Your task to perform on an android device: Add razer thresher to the cart on newegg Image 0: 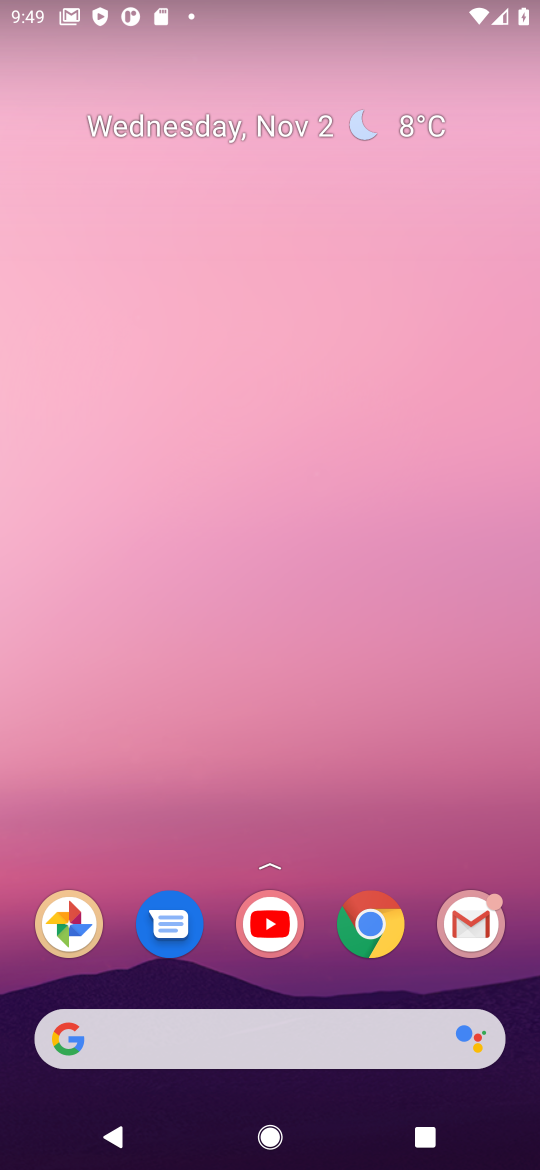
Step 0: click (365, 915)
Your task to perform on an android device: Add razer thresher to the cart on newegg Image 1: 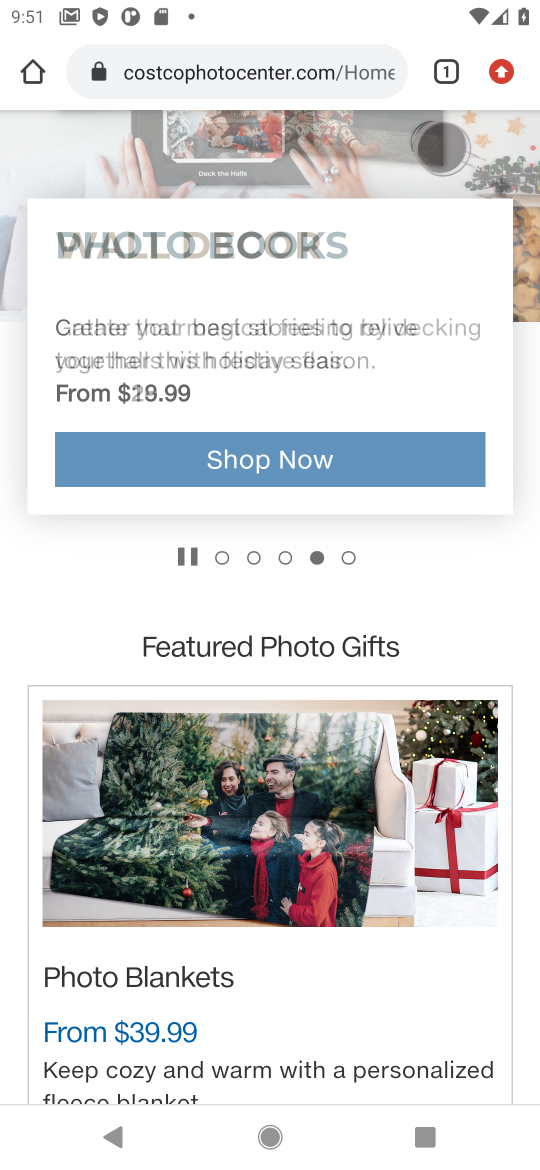
Step 1: click (227, 71)
Your task to perform on an android device: Add razer thresher to the cart on newegg Image 2: 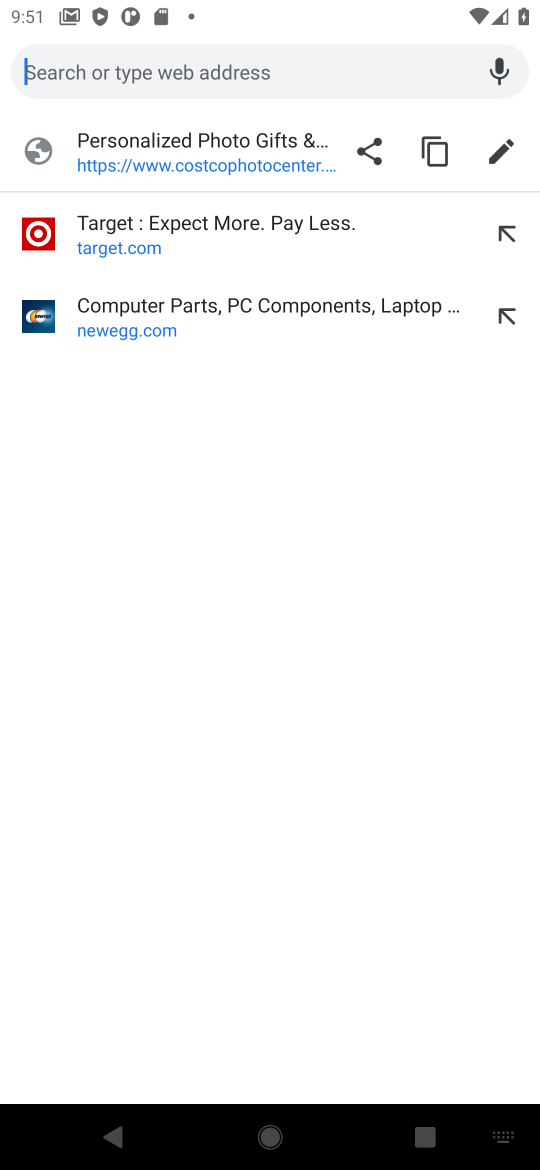
Step 2: type "newegg"
Your task to perform on an android device: Add razer thresher to the cart on newegg Image 3: 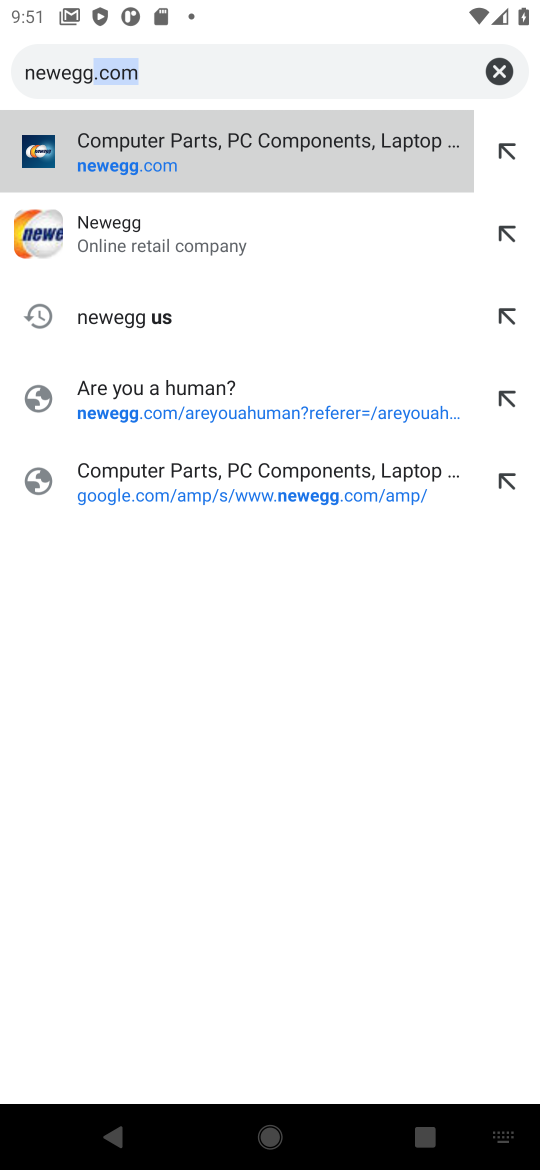
Step 3: click (116, 243)
Your task to perform on an android device: Add razer thresher to the cart on newegg Image 4: 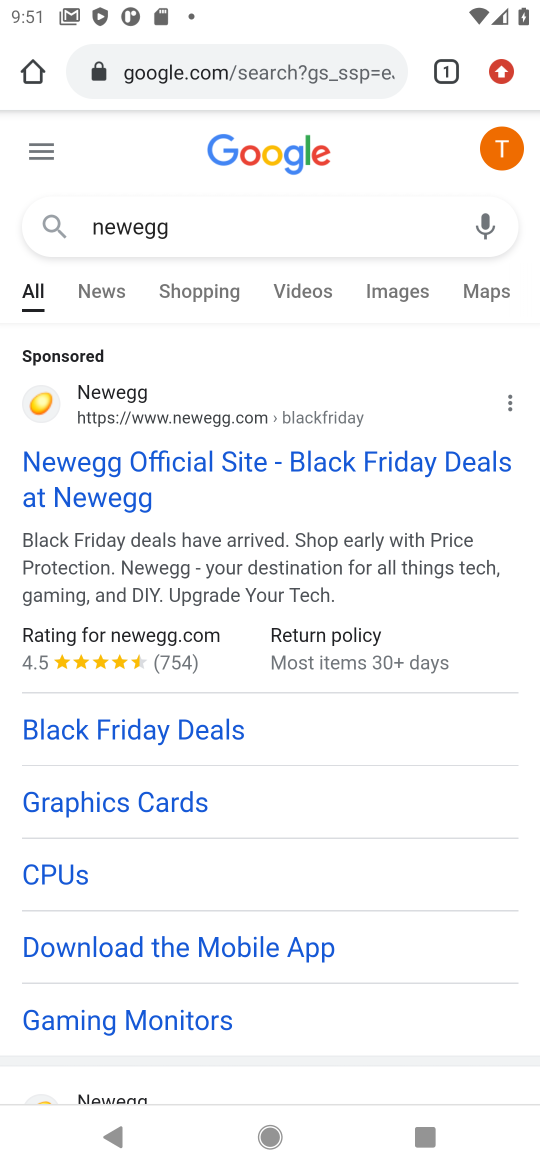
Step 4: drag from (270, 756) to (275, 903)
Your task to perform on an android device: Add razer thresher to the cart on newegg Image 5: 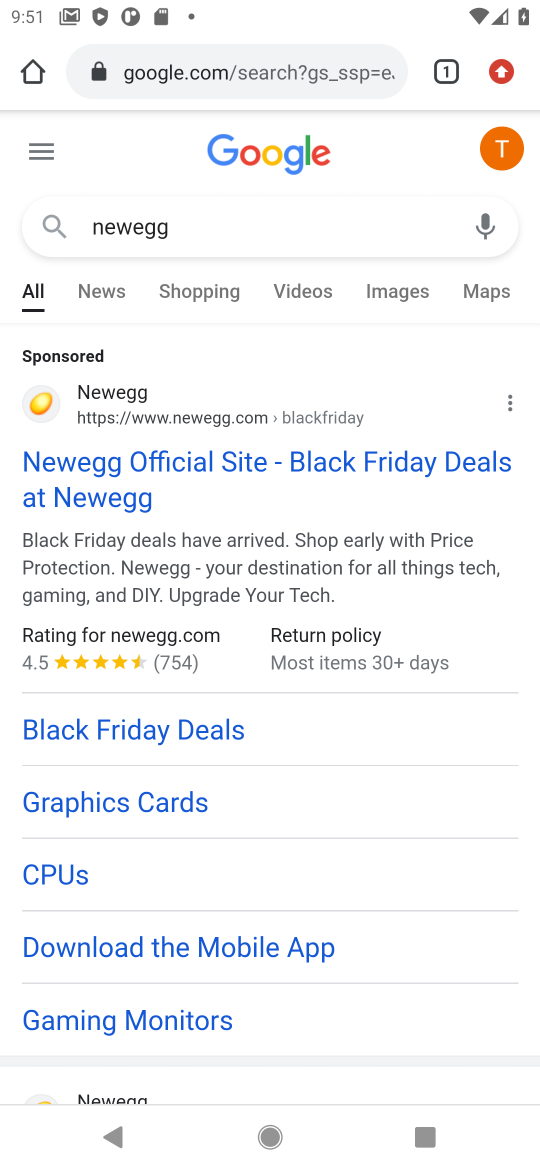
Step 5: click (205, 461)
Your task to perform on an android device: Add razer thresher to the cart on newegg Image 6: 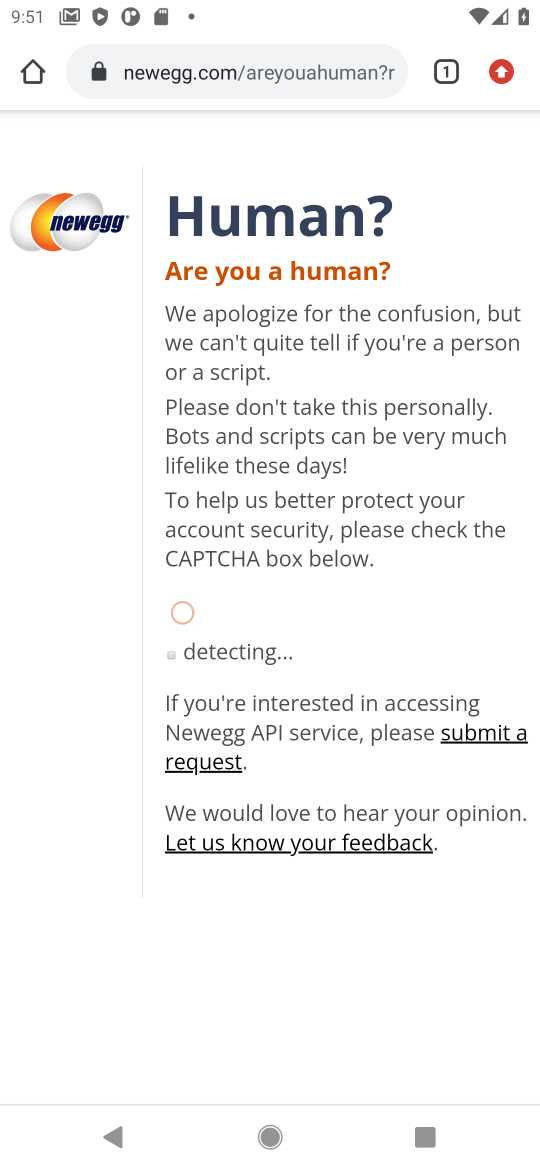
Step 6: press back button
Your task to perform on an android device: Add razer thresher to the cart on newegg Image 7: 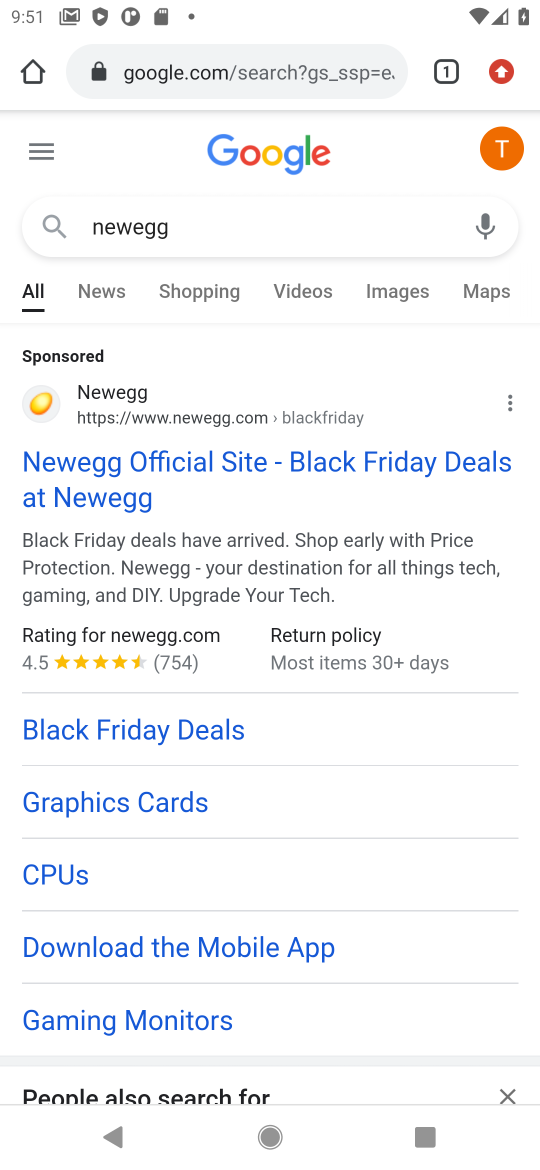
Step 7: drag from (167, 798) to (172, 419)
Your task to perform on an android device: Add razer thresher to the cart on newegg Image 8: 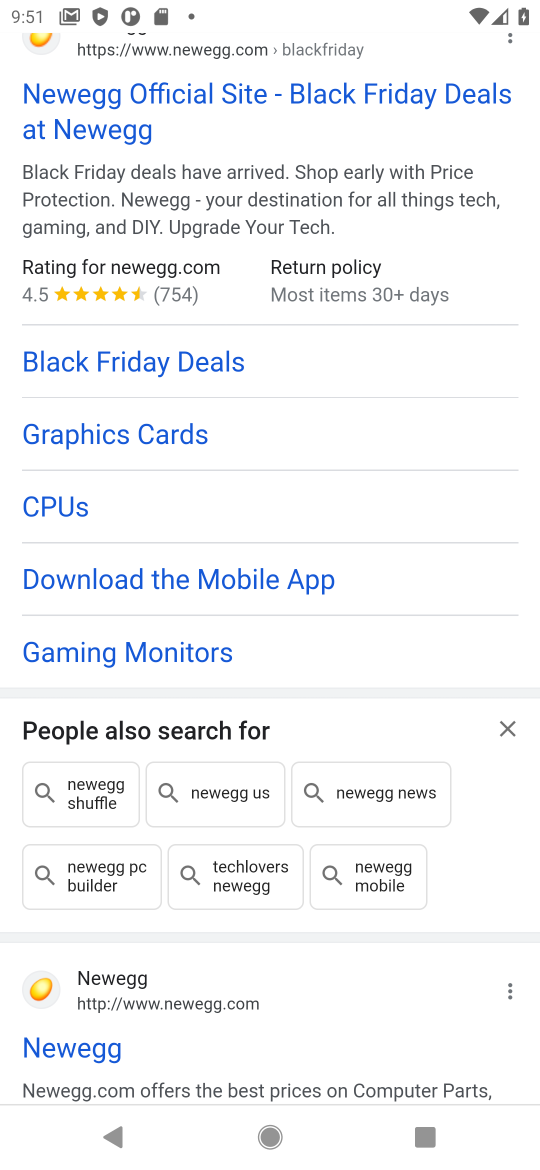
Step 8: drag from (188, 869) to (190, 367)
Your task to perform on an android device: Add razer thresher to the cart on newegg Image 9: 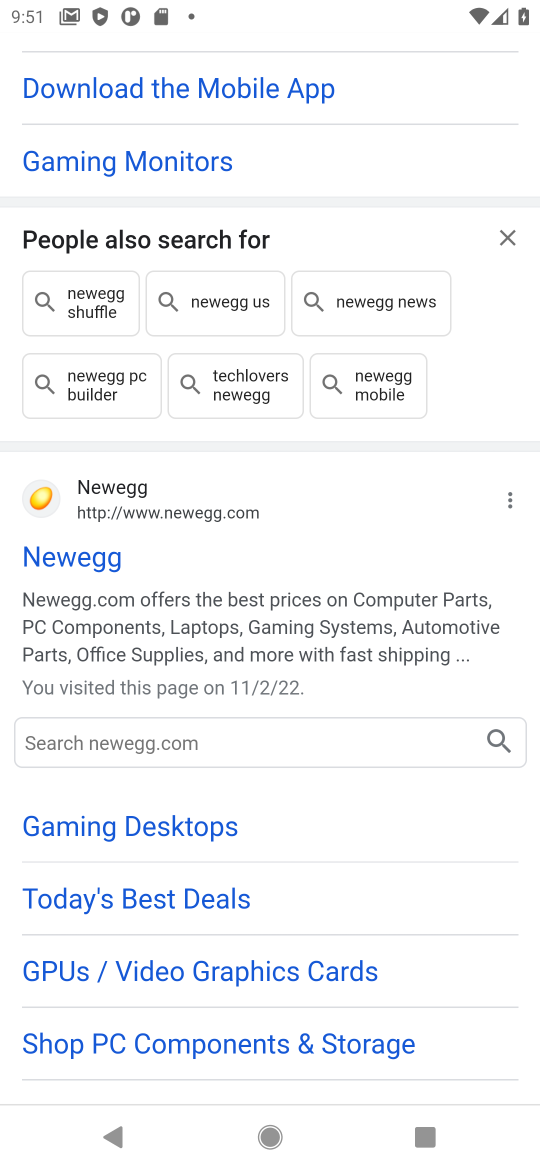
Step 9: click (95, 564)
Your task to perform on an android device: Add razer thresher to the cart on newegg Image 10: 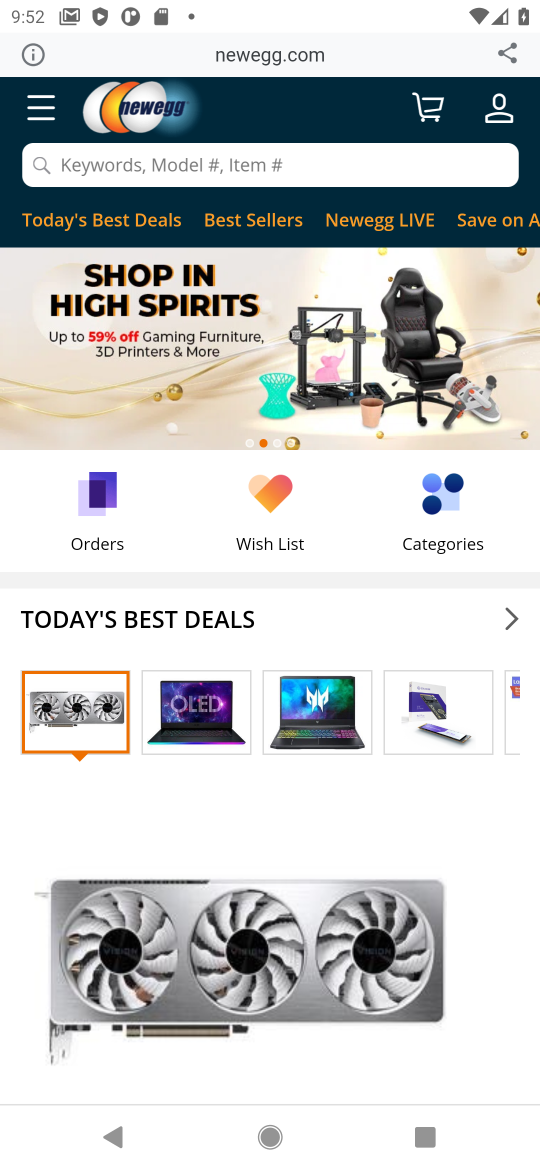
Step 10: click (79, 168)
Your task to perform on an android device: Add razer thresher to the cart on newegg Image 11: 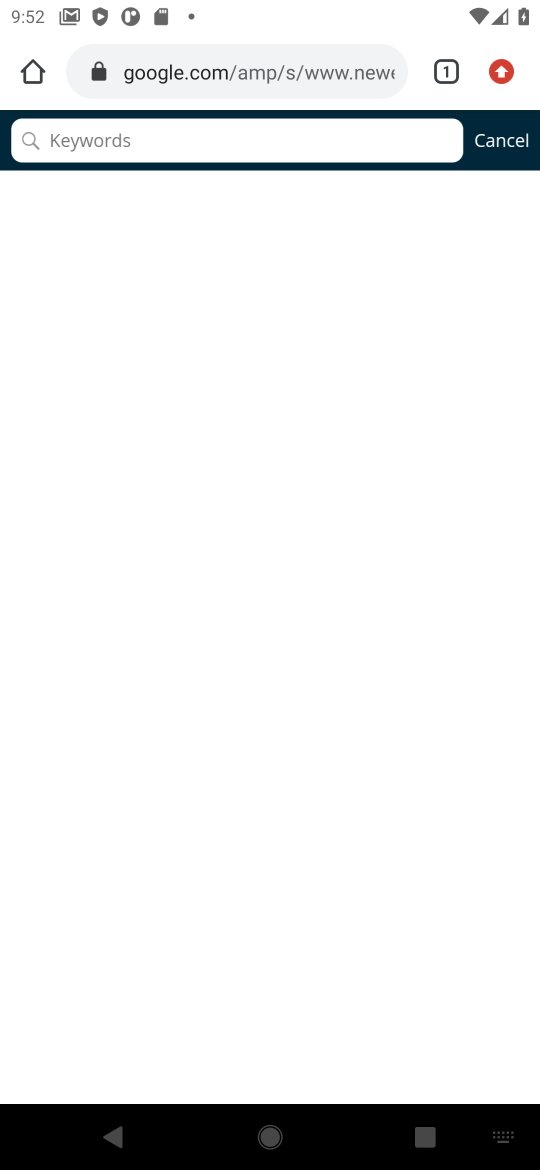
Step 11: type "razer thresher"
Your task to perform on an android device: Add razer thresher to the cart on newegg Image 12: 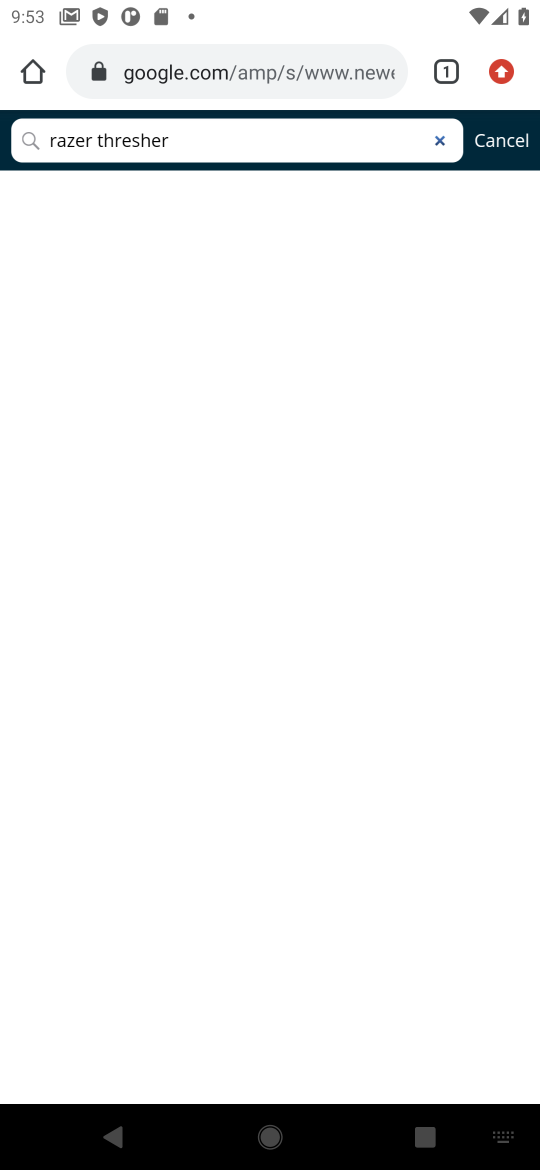
Step 12: click (34, 141)
Your task to perform on an android device: Add razer thresher to the cart on newegg Image 13: 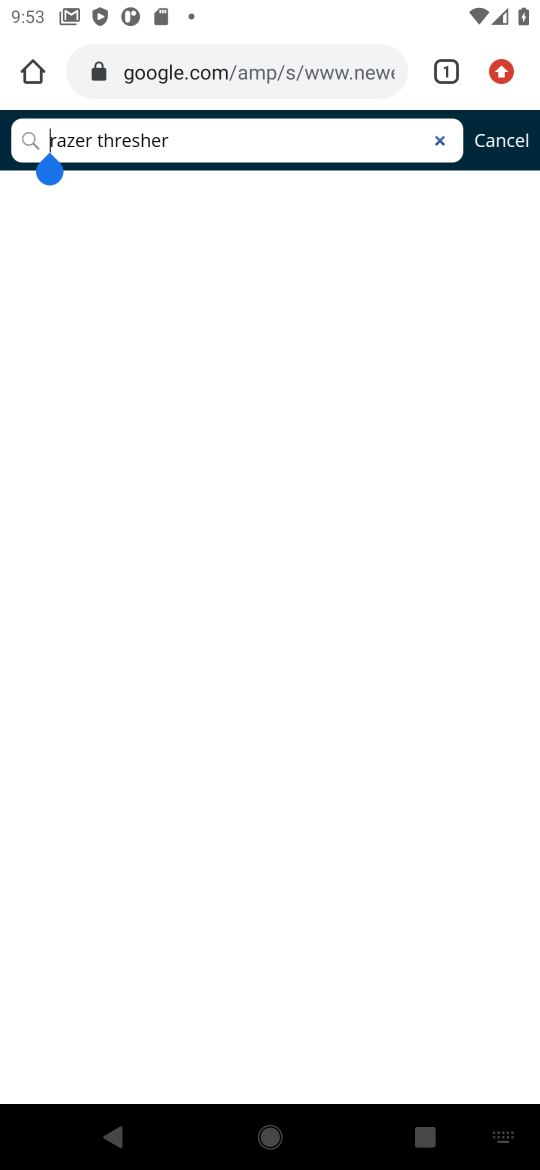
Step 13: click (34, 139)
Your task to perform on an android device: Add razer thresher to the cart on newegg Image 14: 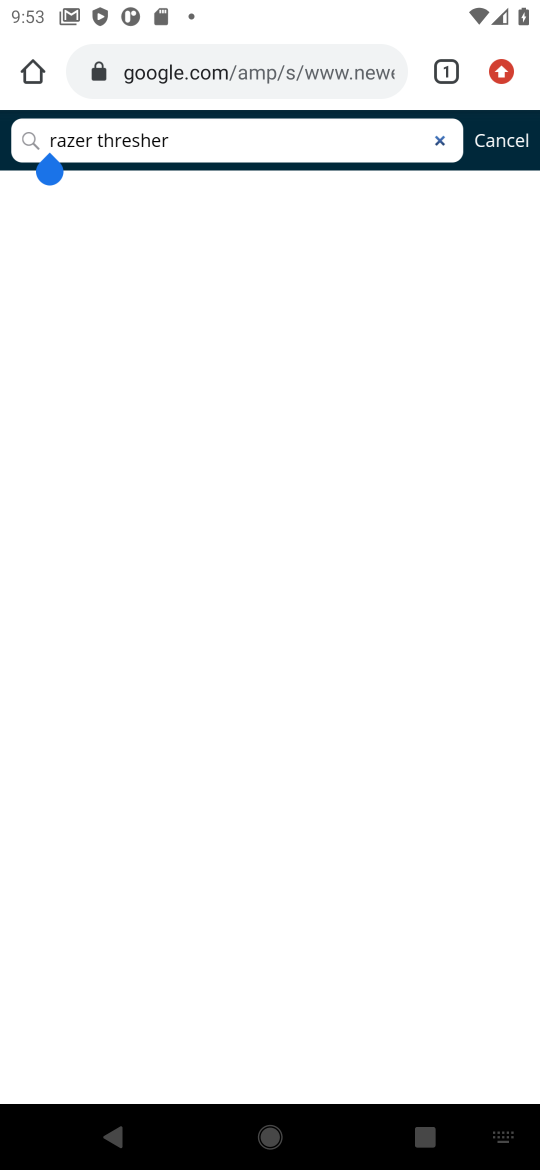
Step 14: press back button
Your task to perform on an android device: Add razer thresher to the cart on newegg Image 15: 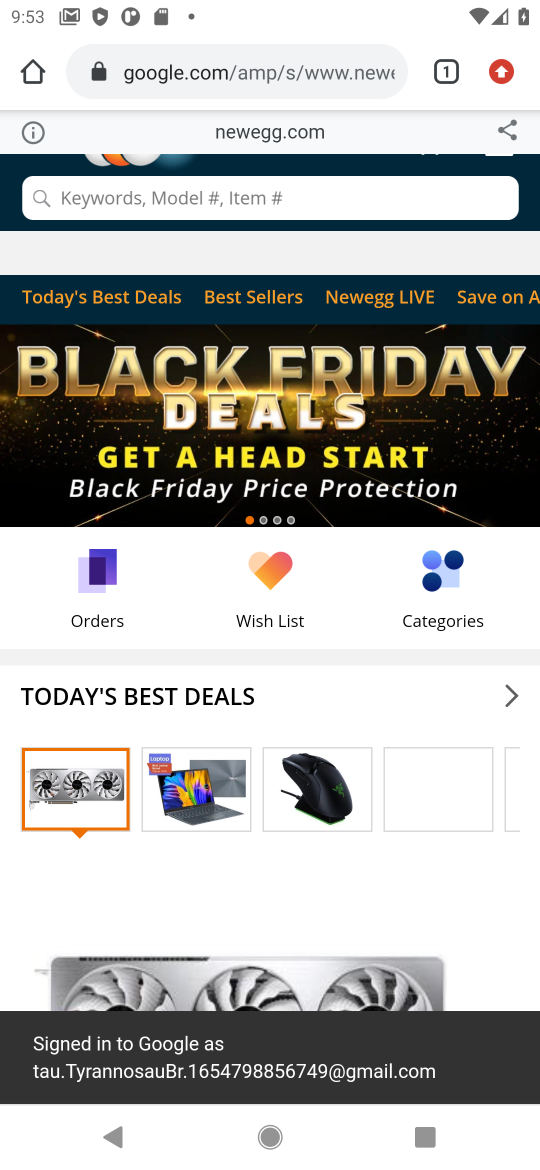
Step 15: click (289, 303)
Your task to perform on an android device: Add razer thresher to the cart on newegg Image 16: 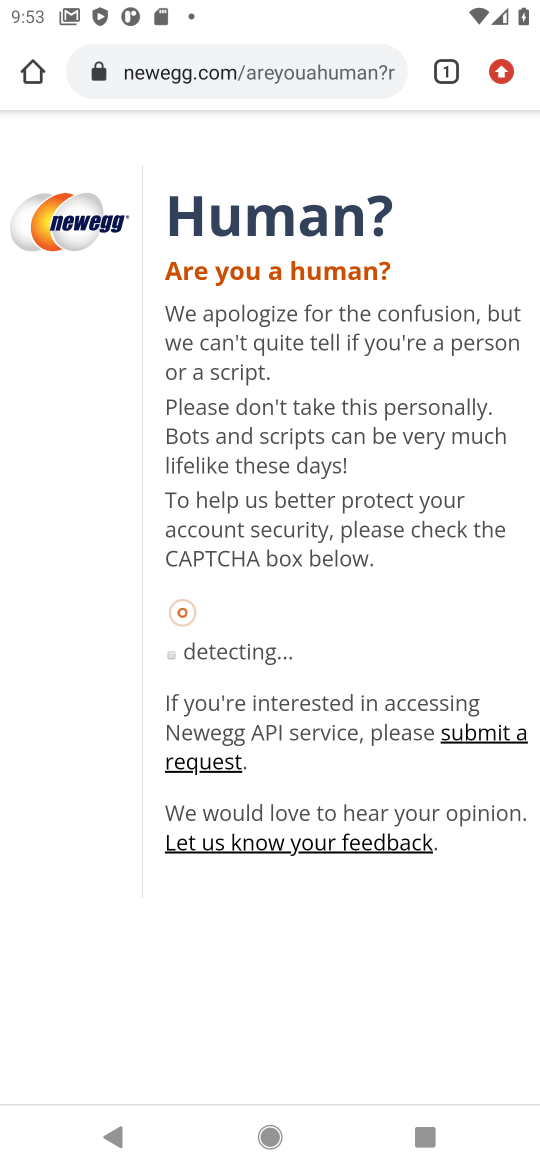
Step 16: press back button
Your task to perform on an android device: Add razer thresher to the cart on newegg Image 17: 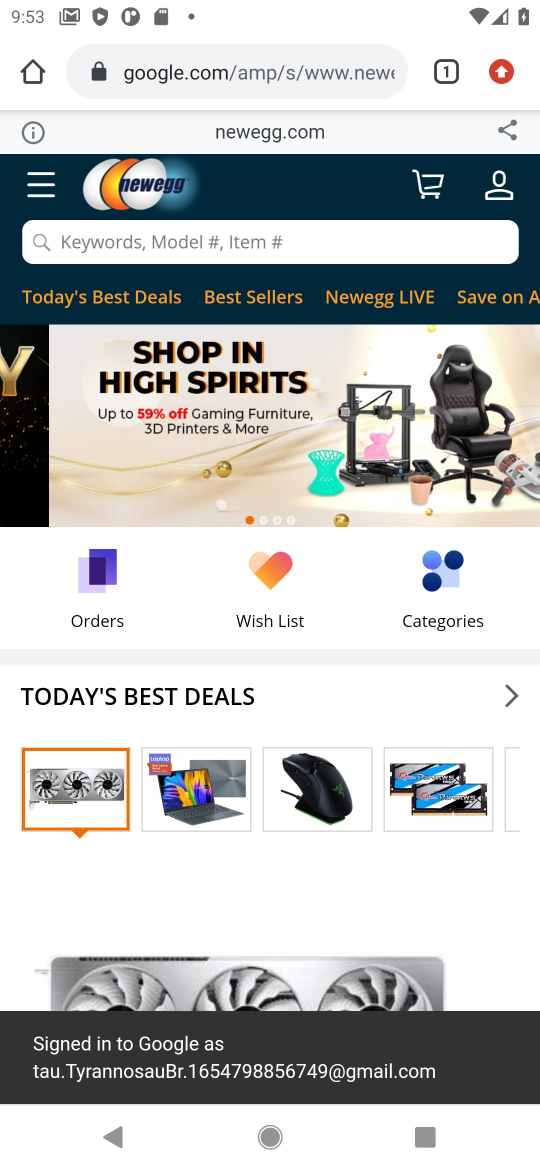
Step 17: click (123, 237)
Your task to perform on an android device: Add razer thresher to the cart on newegg Image 18: 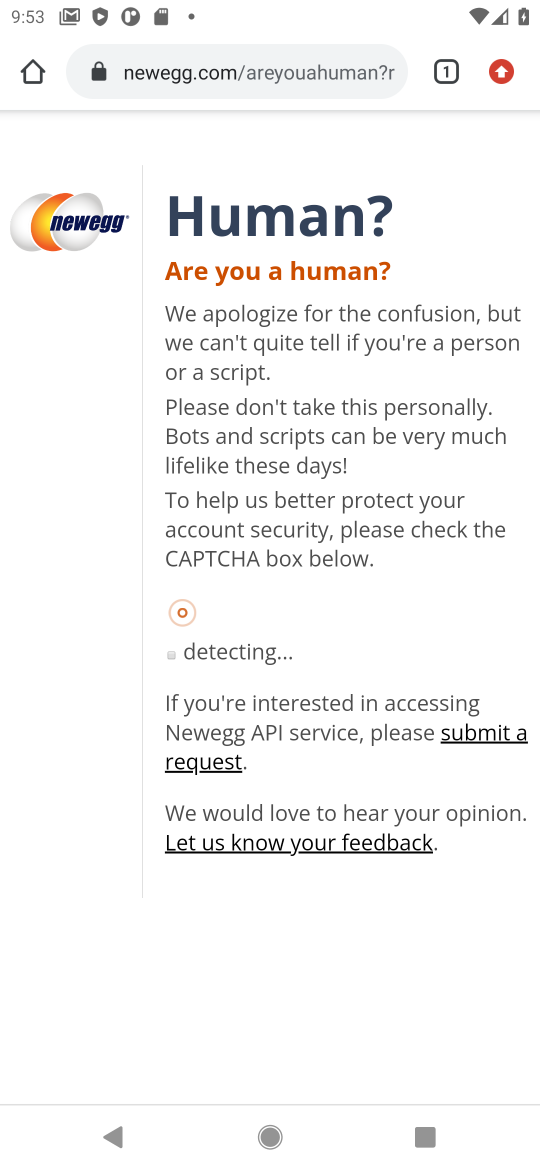
Step 18: press back button
Your task to perform on an android device: Add razer thresher to the cart on newegg Image 19: 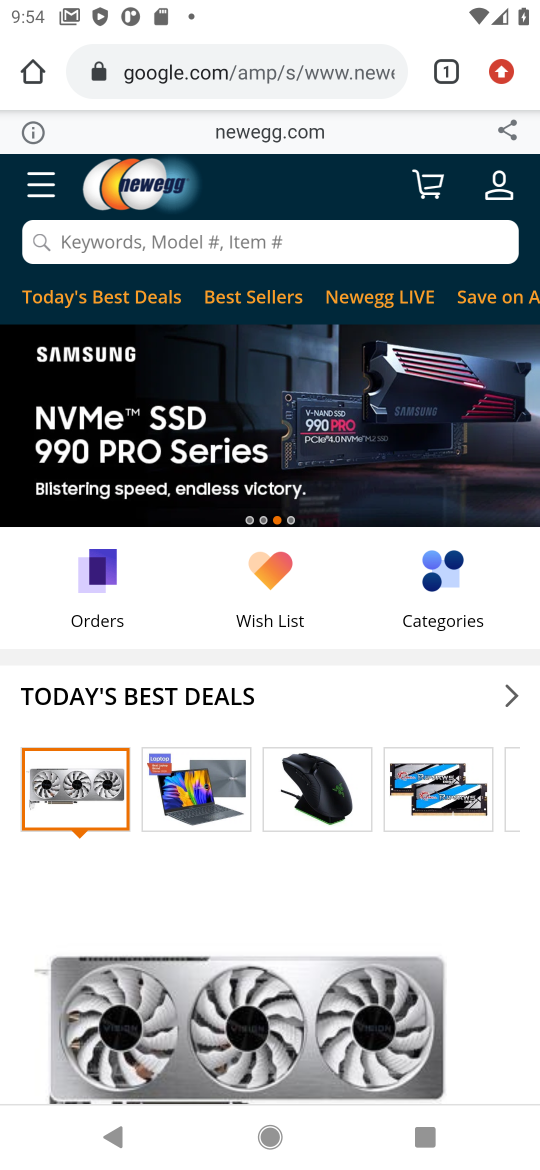
Step 19: click (99, 235)
Your task to perform on an android device: Add razer thresher to the cart on newegg Image 20: 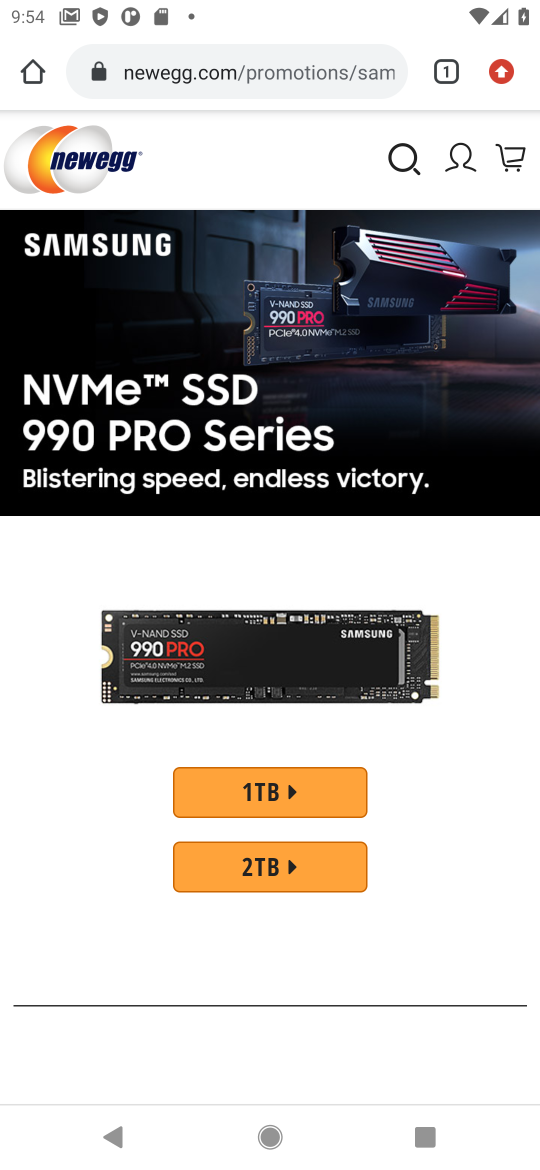
Step 20: click (397, 168)
Your task to perform on an android device: Add razer thresher to the cart on newegg Image 21: 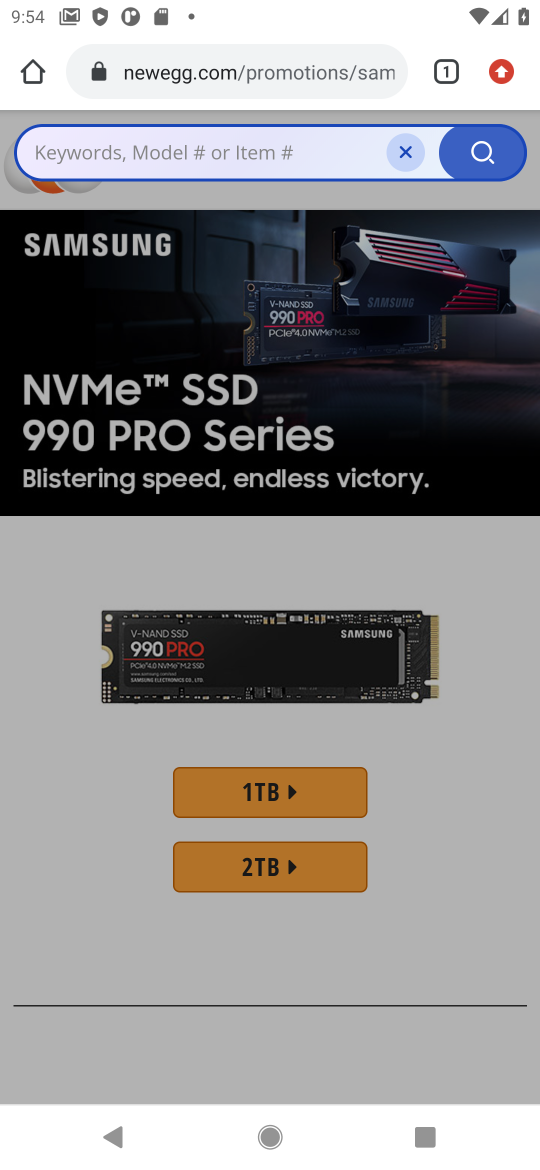
Step 21: click (199, 147)
Your task to perform on an android device: Add razer thresher to the cart on newegg Image 22: 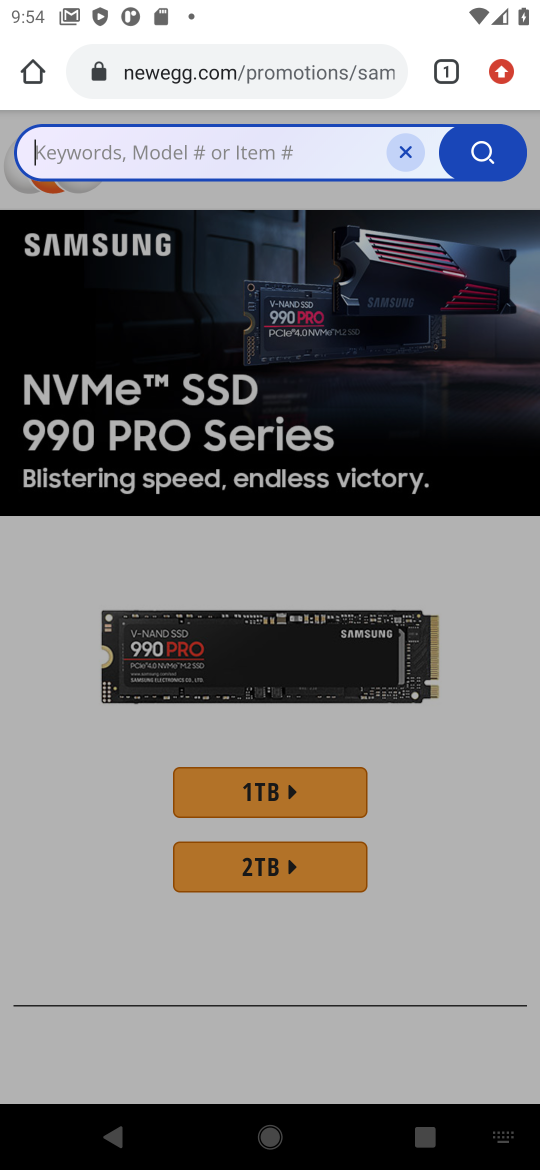
Step 22: type "razer thresher"
Your task to perform on an android device: Add razer thresher to the cart on newegg Image 23: 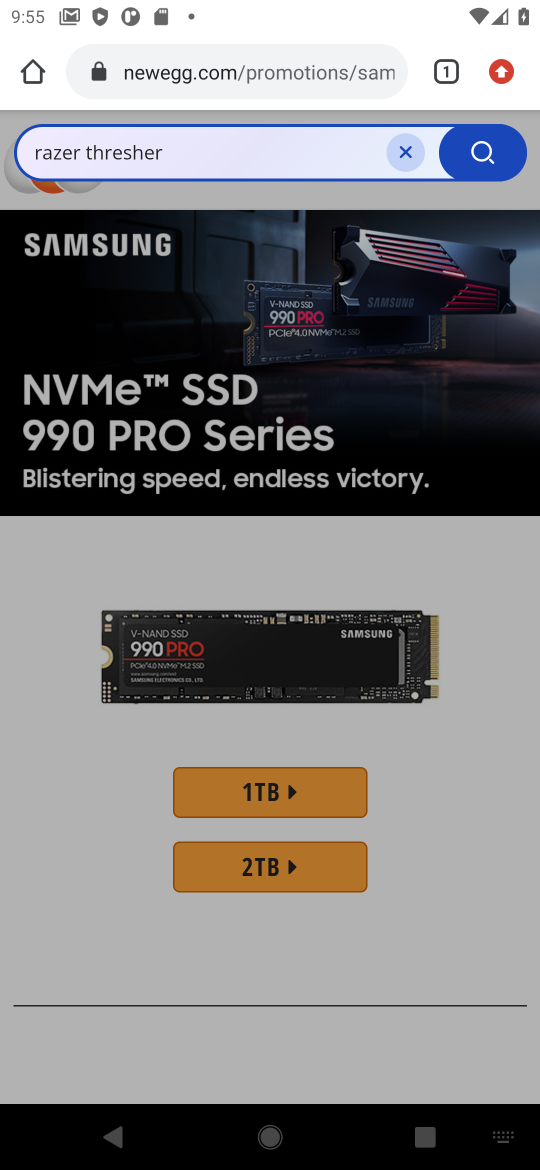
Step 23: drag from (58, 810) to (117, 204)
Your task to perform on an android device: Add razer thresher to the cart on newegg Image 24: 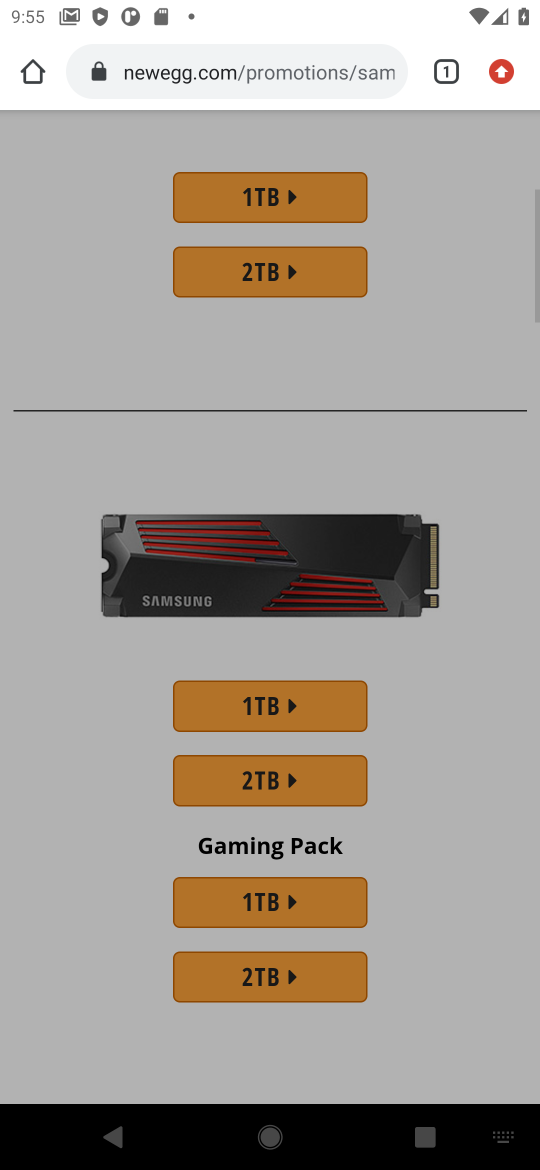
Step 24: drag from (270, 854) to (317, 358)
Your task to perform on an android device: Add razer thresher to the cart on newegg Image 25: 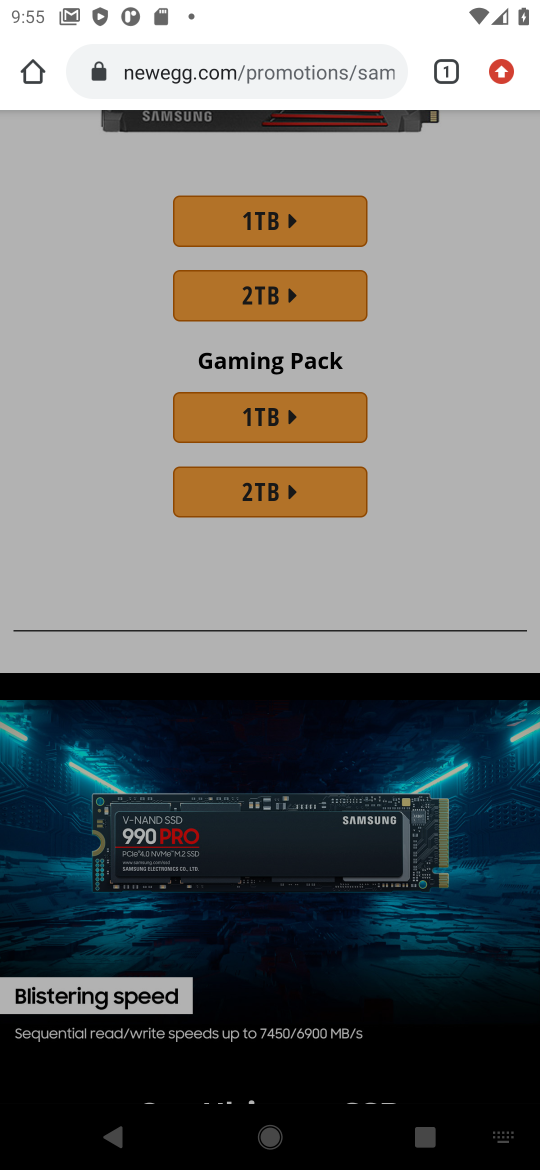
Step 25: click (187, 868)
Your task to perform on an android device: Add razer thresher to the cart on newegg Image 26: 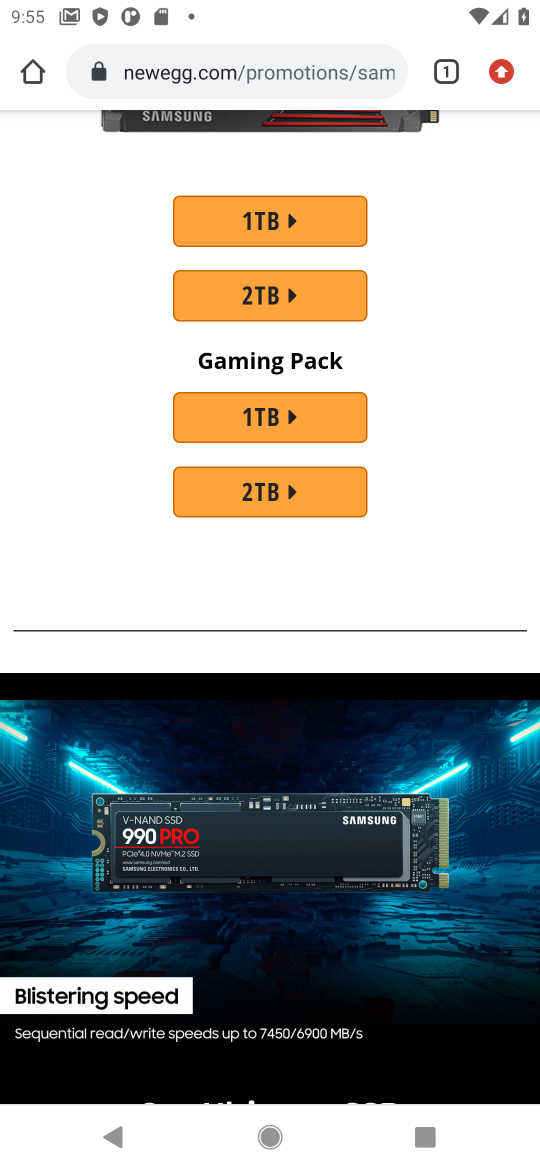
Step 26: click (190, 867)
Your task to perform on an android device: Add razer thresher to the cart on newegg Image 27: 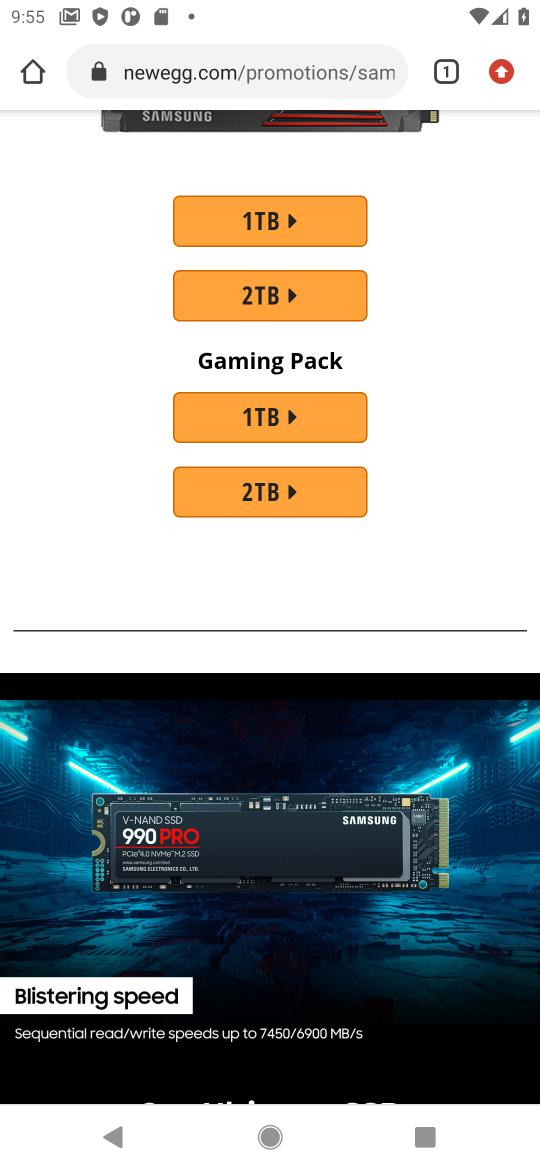
Step 27: drag from (300, 876) to (308, 328)
Your task to perform on an android device: Add razer thresher to the cart on newegg Image 28: 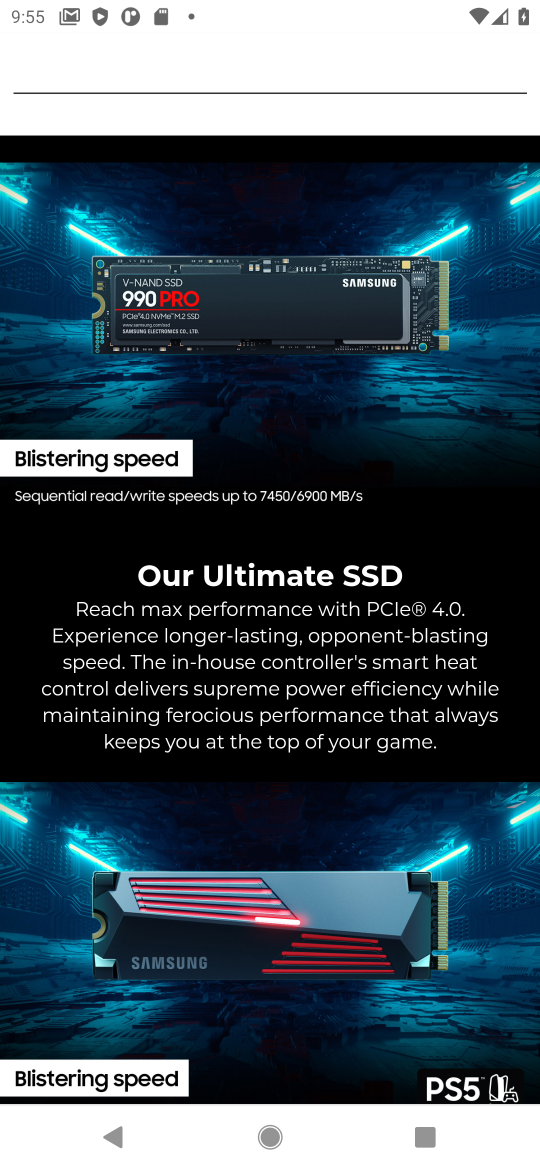
Step 28: drag from (491, 681) to (376, 153)
Your task to perform on an android device: Add razer thresher to the cart on newegg Image 29: 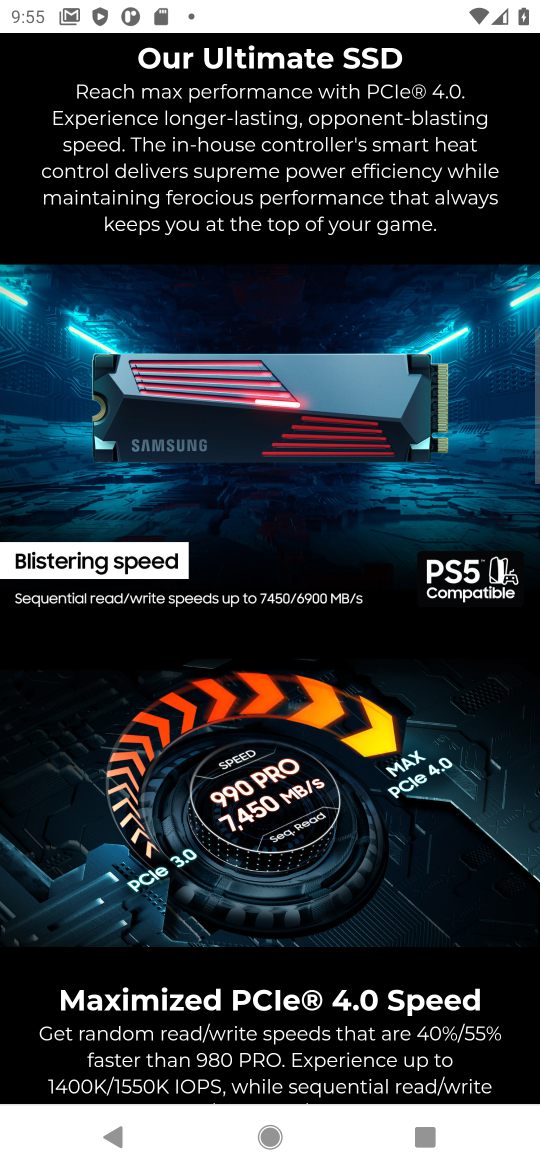
Step 29: drag from (317, 1040) to (316, 365)
Your task to perform on an android device: Add razer thresher to the cart on newegg Image 30: 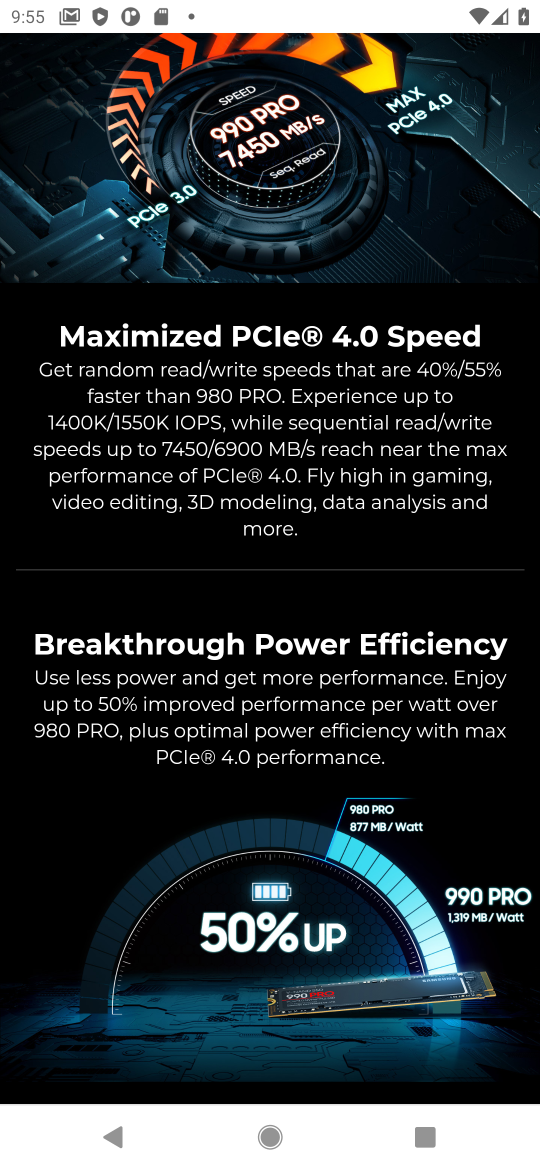
Step 30: press back button
Your task to perform on an android device: Add razer thresher to the cart on newegg Image 31: 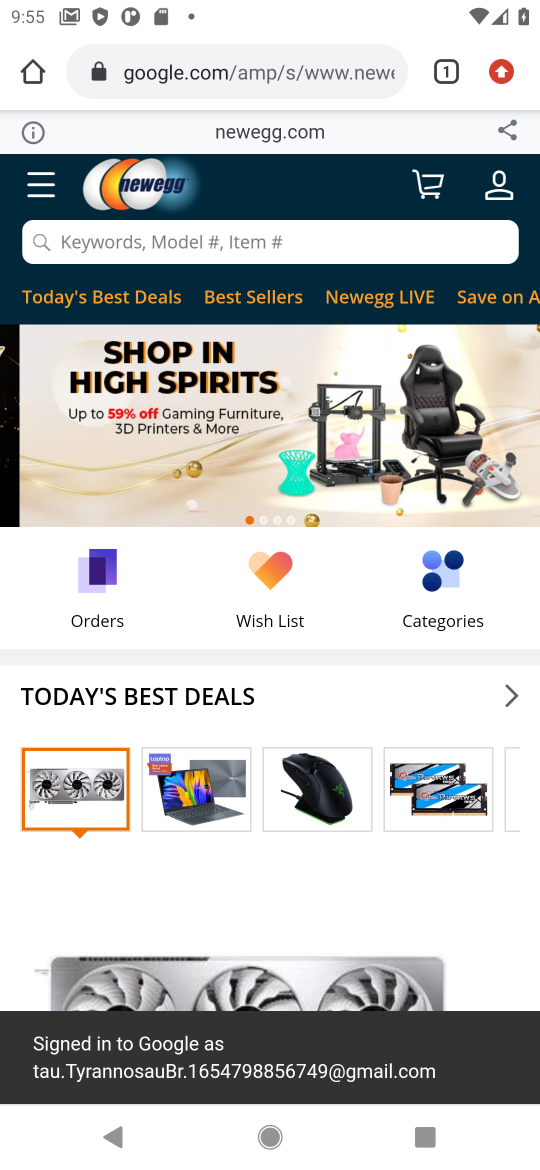
Step 31: drag from (216, 697) to (232, 487)
Your task to perform on an android device: Add razer thresher to the cart on newegg Image 32: 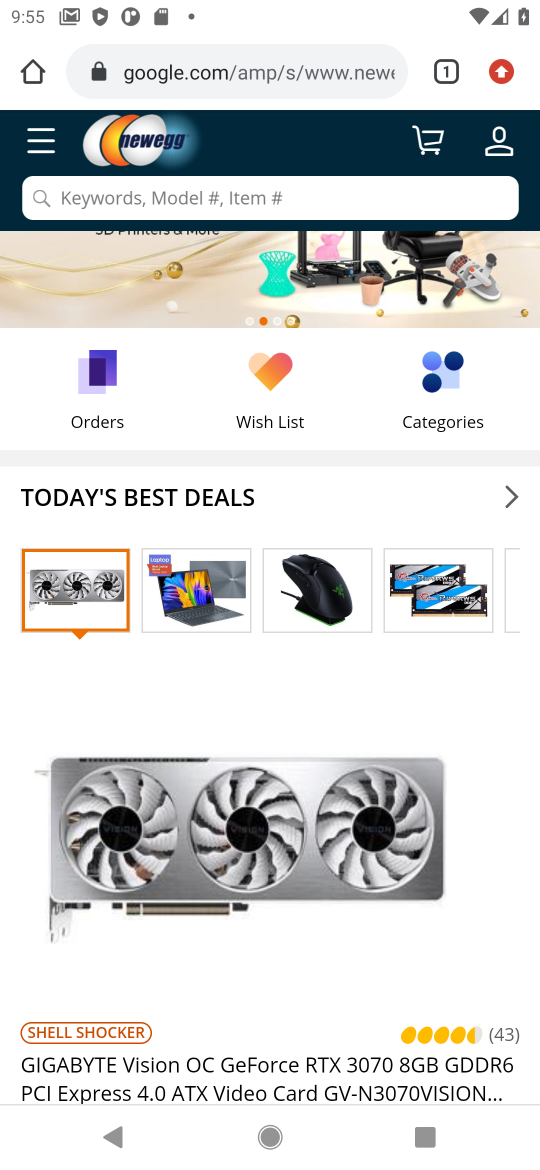
Step 32: click (130, 203)
Your task to perform on an android device: Add razer thresher to the cart on newegg Image 33: 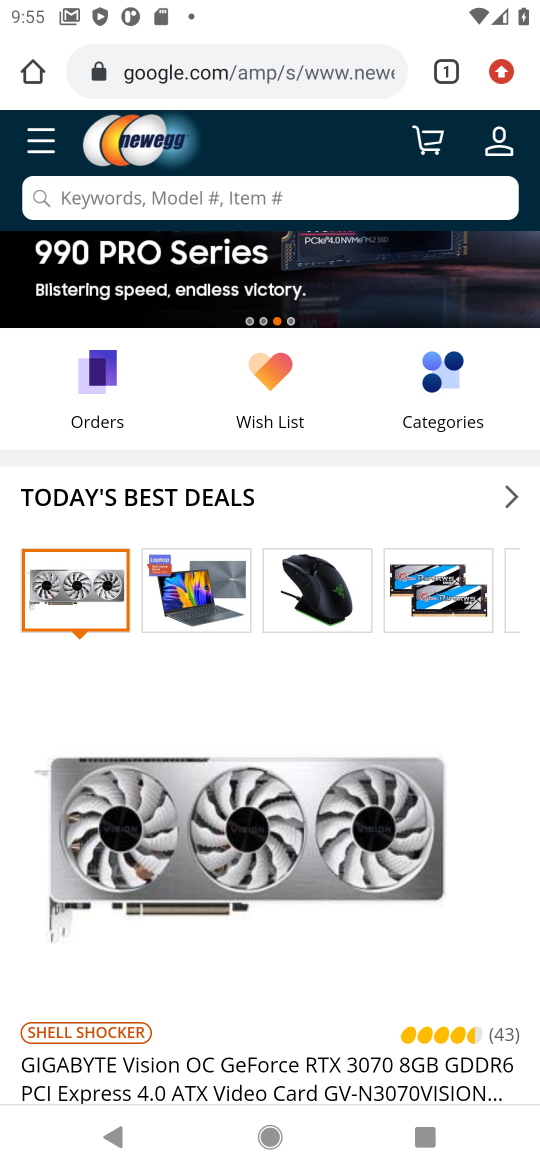
Step 33: click (133, 198)
Your task to perform on an android device: Add razer thresher to the cart on newegg Image 34: 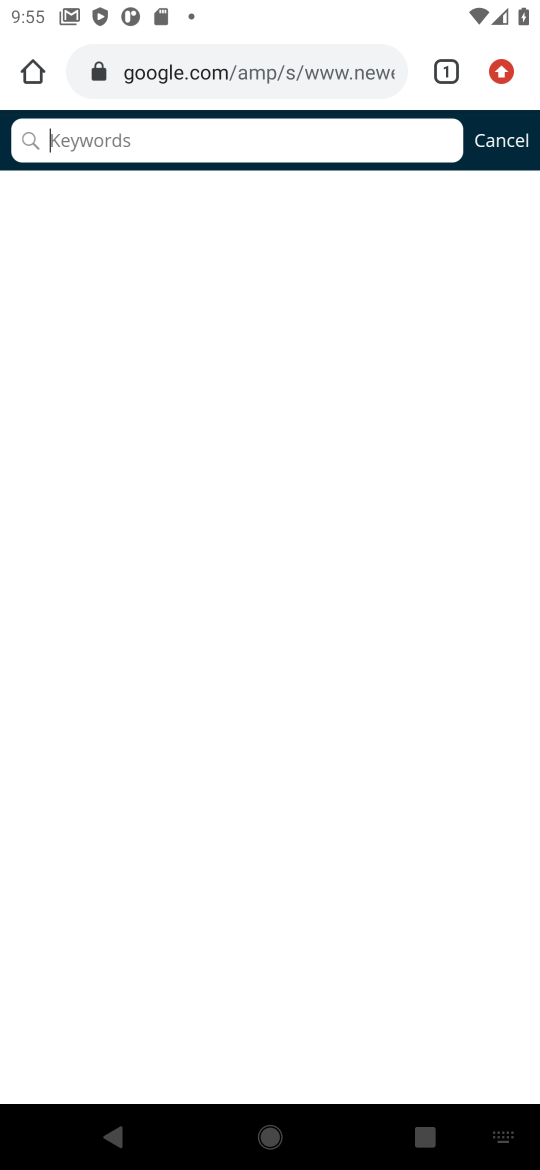
Step 34: task complete